Your task to perform on an android device: turn pop-ups off in chrome Image 0: 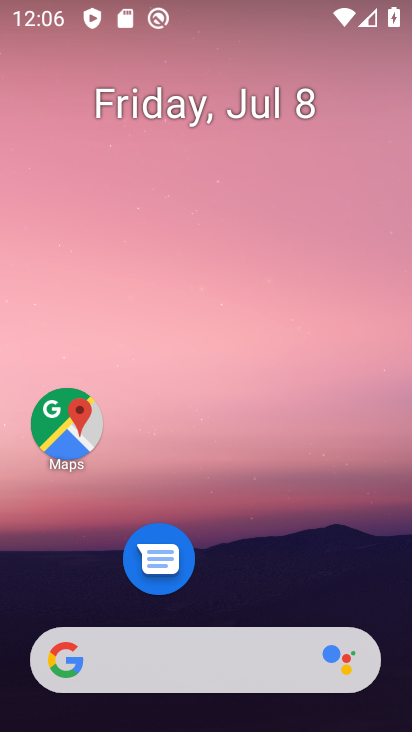
Step 0: drag from (231, 594) to (212, 162)
Your task to perform on an android device: turn pop-ups off in chrome Image 1: 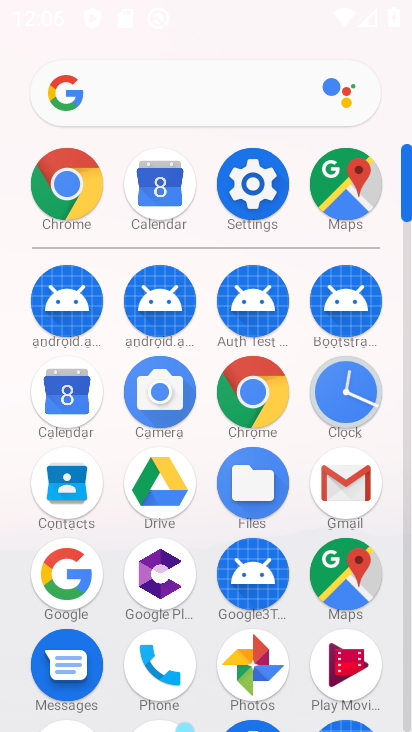
Step 1: click (84, 205)
Your task to perform on an android device: turn pop-ups off in chrome Image 2: 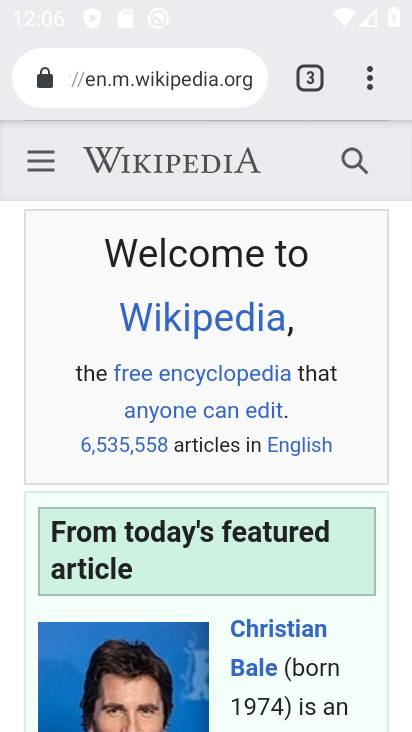
Step 2: drag from (234, 222) to (240, 471)
Your task to perform on an android device: turn pop-ups off in chrome Image 3: 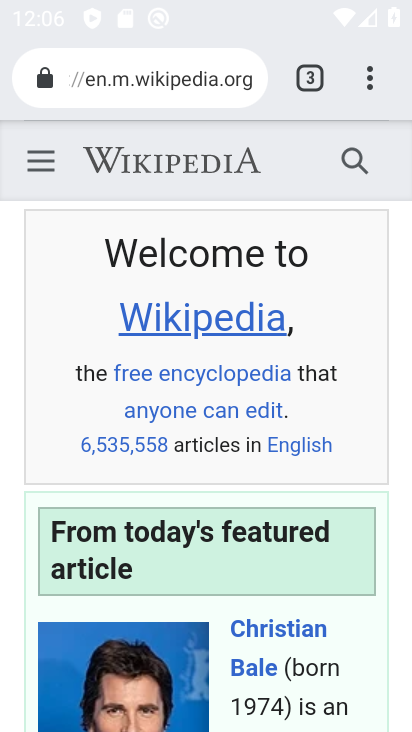
Step 3: click (371, 78)
Your task to perform on an android device: turn pop-ups off in chrome Image 4: 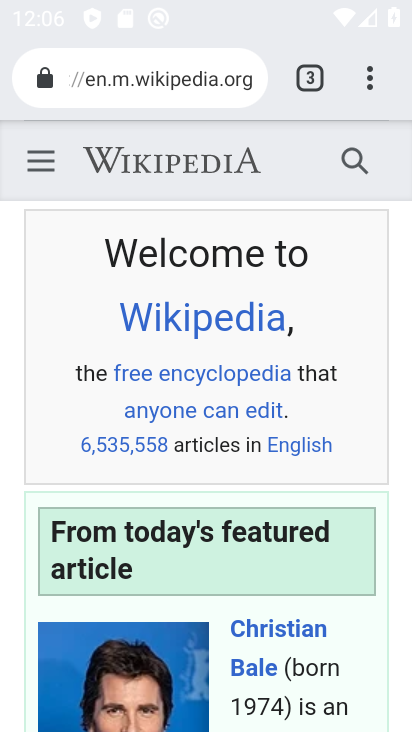
Step 4: click (362, 82)
Your task to perform on an android device: turn pop-ups off in chrome Image 5: 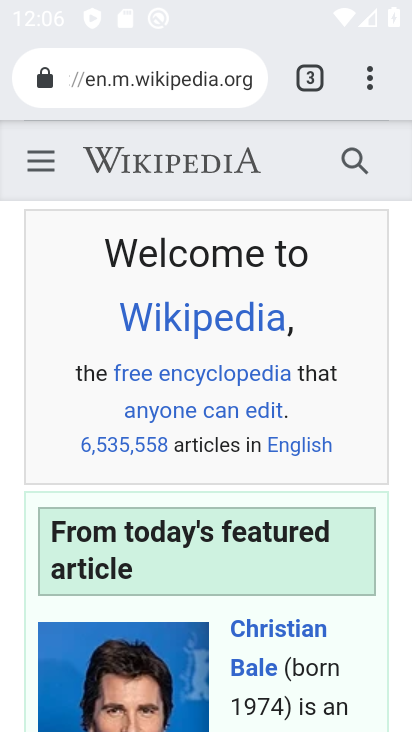
Step 5: drag from (363, 87) to (112, 650)
Your task to perform on an android device: turn pop-ups off in chrome Image 6: 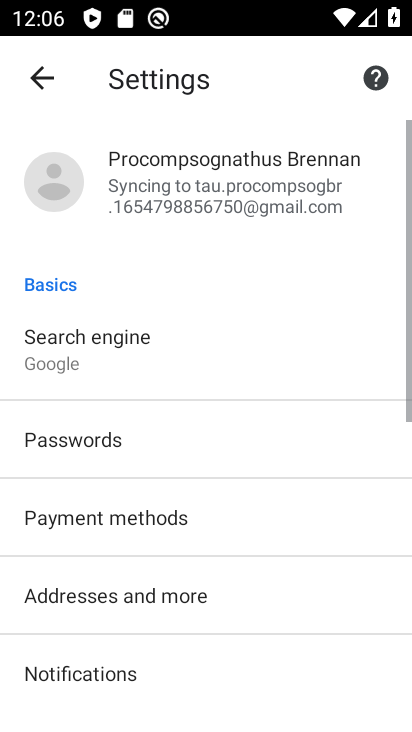
Step 6: drag from (150, 577) to (149, 108)
Your task to perform on an android device: turn pop-ups off in chrome Image 7: 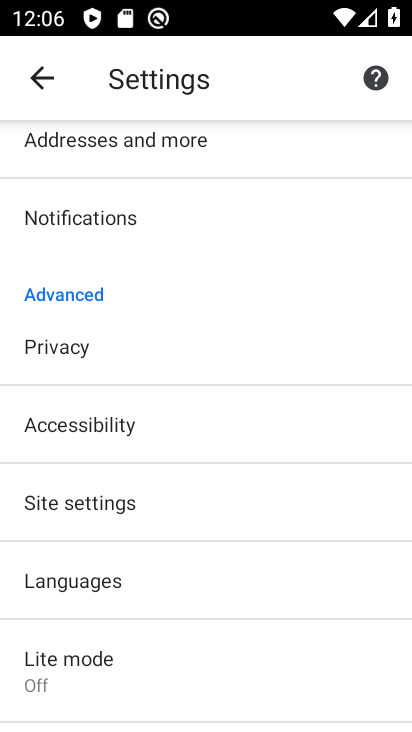
Step 7: click (44, 502)
Your task to perform on an android device: turn pop-ups off in chrome Image 8: 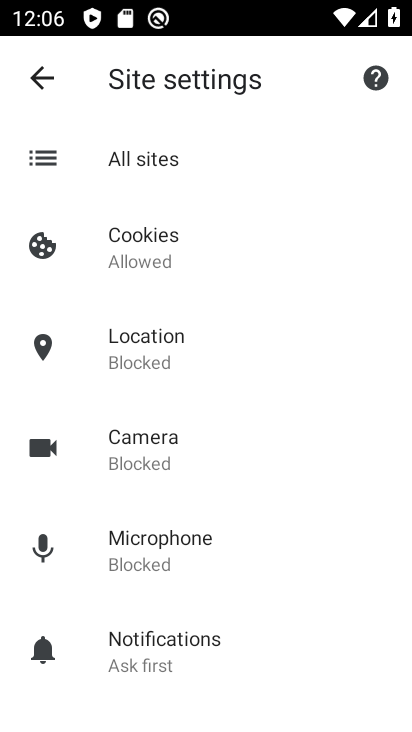
Step 8: drag from (172, 490) to (160, 242)
Your task to perform on an android device: turn pop-ups off in chrome Image 9: 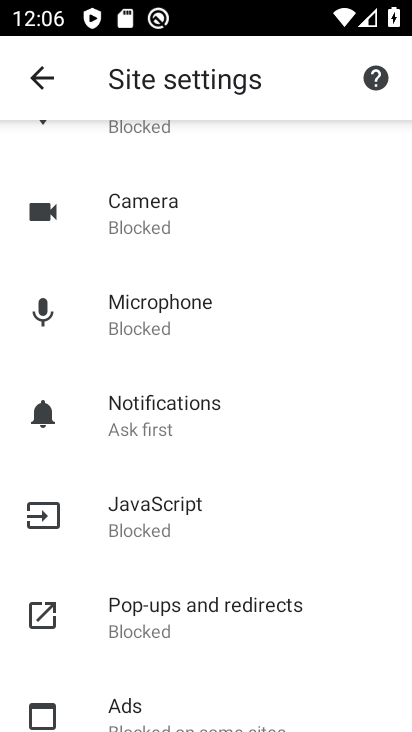
Step 9: click (208, 637)
Your task to perform on an android device: turn pop-ups off in chrome Image 10: 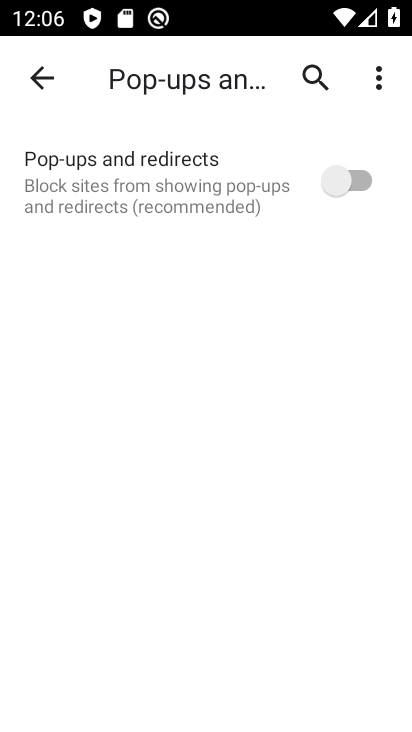
Step 10: task complete